Your task to perform on an android device: delete a single message in the gmail app Image 0: 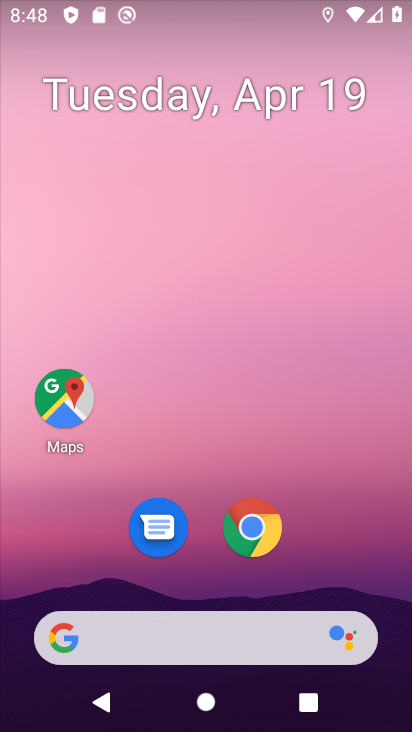
Step 0: drag from (331, 558) to (310, 171)
Your task to perform on an android device: delete a single message in the gmail app Image 1: 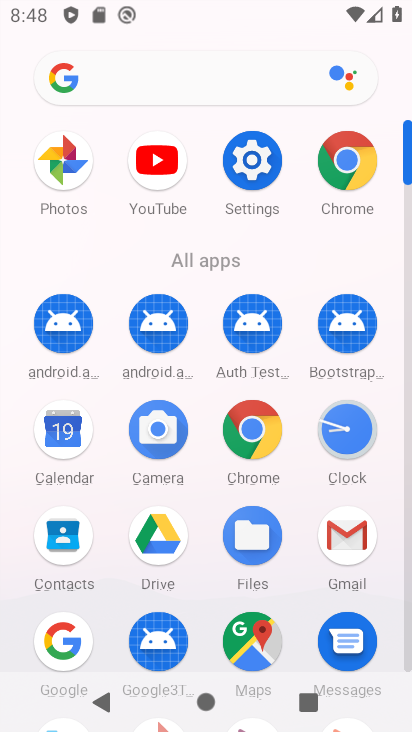
Step 1: click (347, 531)
Your task to perform on an android device: delete a single message in the gmail app Image 2: 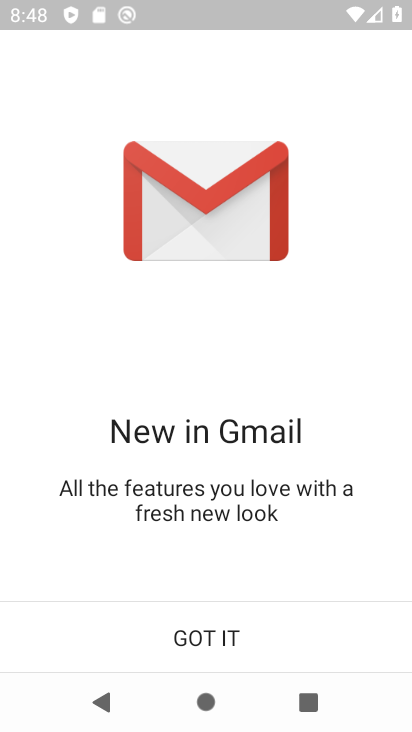
Step 2: click (206, 620)
Your task to perform on an android device: delete a single message in the gmail app Image 3: 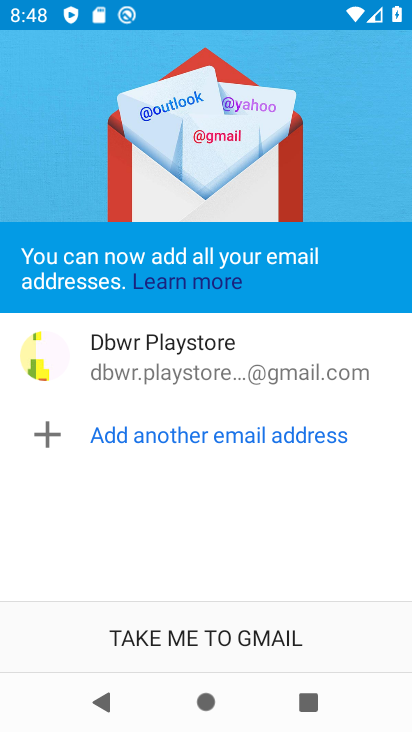
Step 3: click (210, 638)
Your task to perform on an android device: delete a single message in the gmail app Image 4: 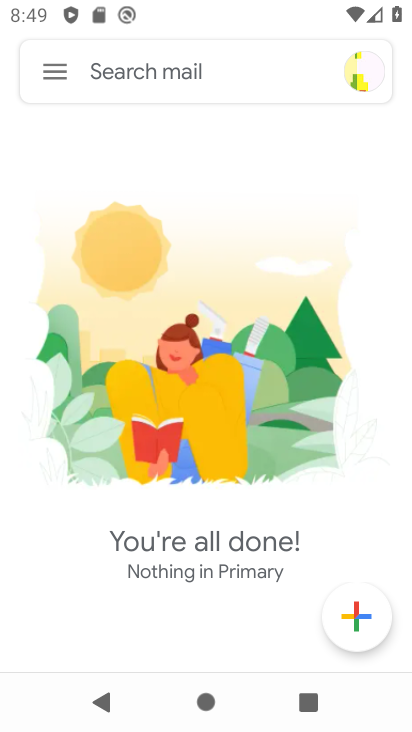
Step 4: click (55, 72)
Your task to perform on an android device: delete a single message in the gmail app Image 5: 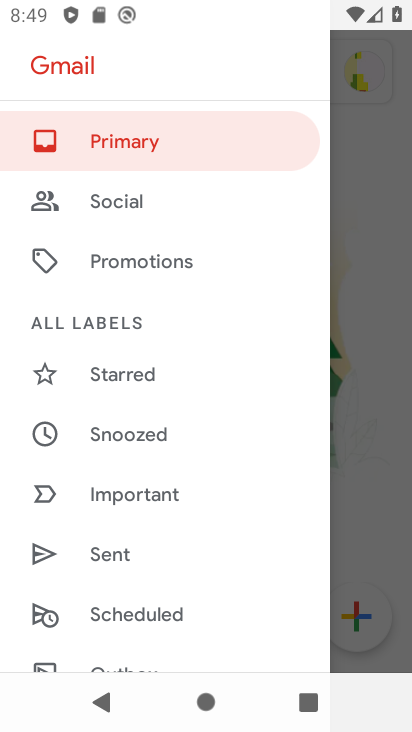
Step 5: drag from (184, 518) to (184, 243)
Your task to perform on an android device: delete a single message in the gmail app Image 6: 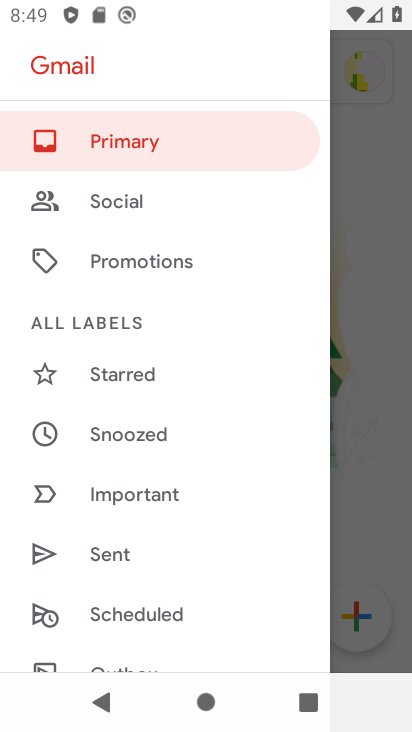
Step 6: drag from (185, 566) to (180, 149)
Your task to perform on an android device: delete a single message in the gmail app Image 7: 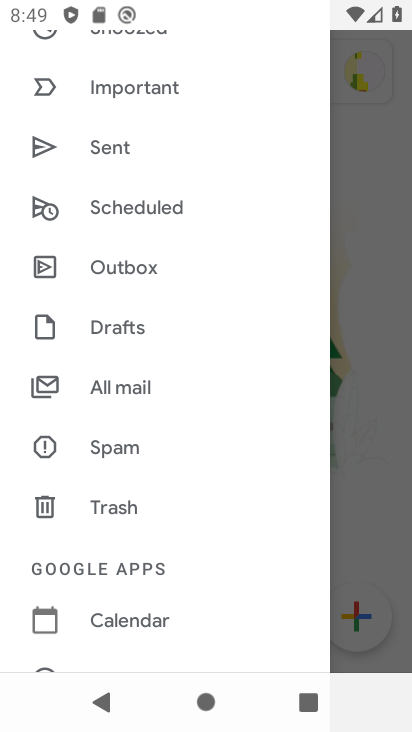
Step 7: click (152, 380)
Your task to perform on an android device: delete a single message in the gmail app Image 8: 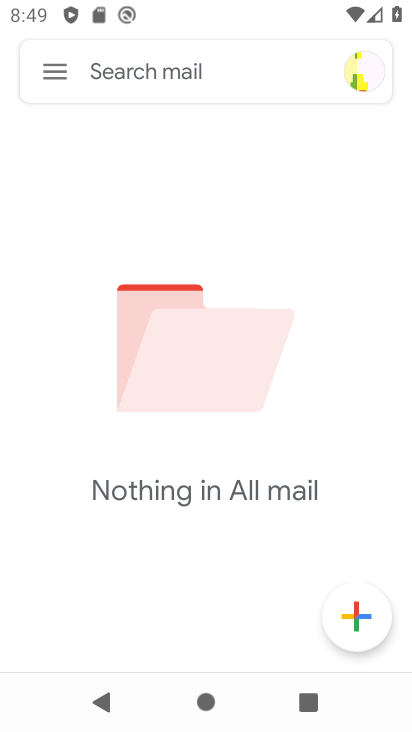
Step 8: task complete